Your task to perform on an android device: Search for pizza restaurants on Maps Image 0: 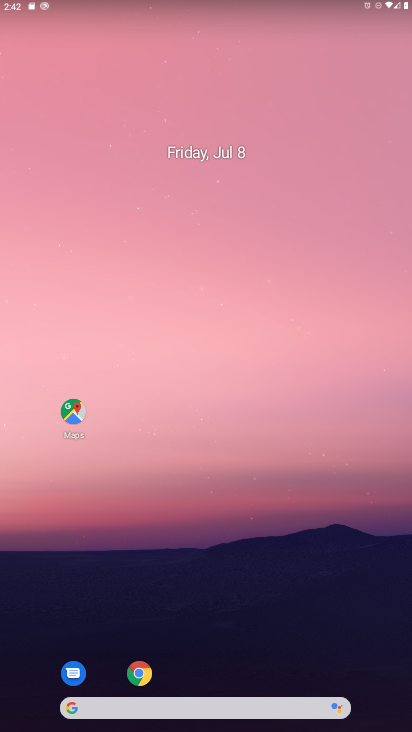
Step 0: press home button
Your task to perform on an android device: Search for pizza restaurants on Maps Image 1: 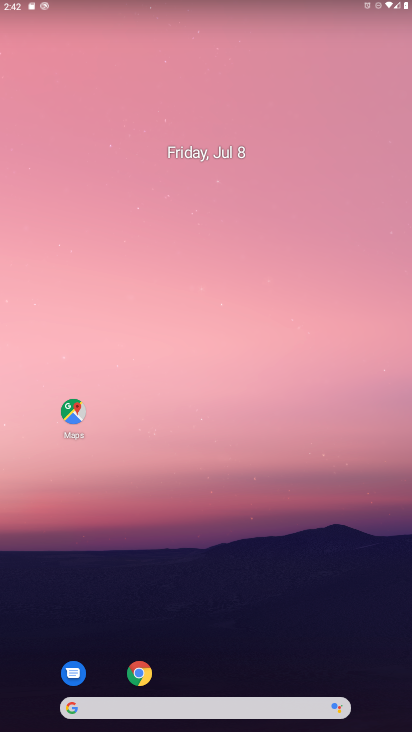
Step 1: click (64, 404)
Your task to perform on an android device: Search for pizza restaurants on Maps Image 2: 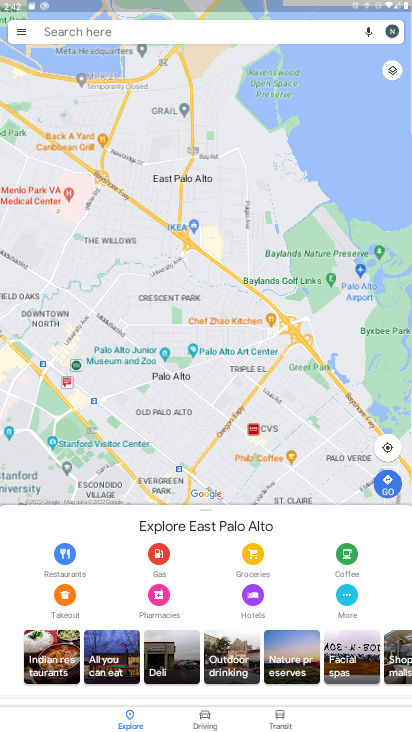
Step 2: click (87, 32)
Your task to perform on an android device: Search for pizza restaurants on Maps Image 3: 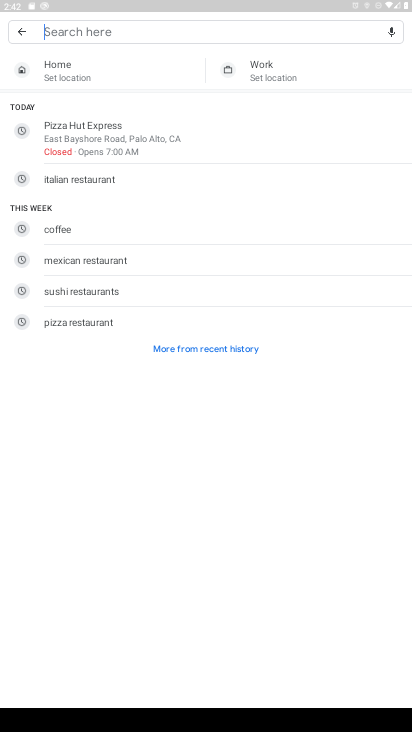
Step 3: type "pizza restaurants"
Your task to perform on an android device: Search for pizza restaurants on Maps Image 4: 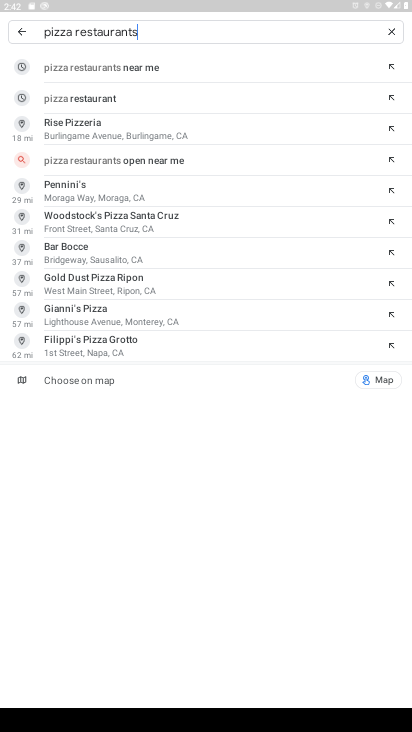
Step 4: click (77, 154)
Your task to perform on an android device: Search for pizza restaurants on Maps Image 5: 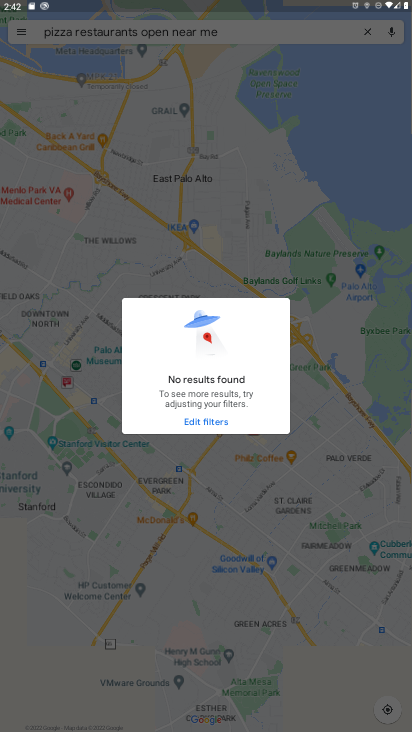
Step 5: task complete